Your task to perform on an android device: remove spam from my inbox in the gmail app Image 0: 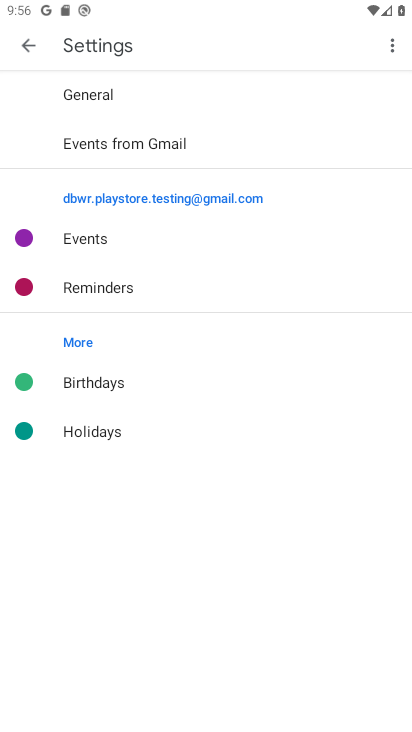
Step 0: press home button
Your task to perform on an android device: remove spam from my inbox in the gmail app Image 1: 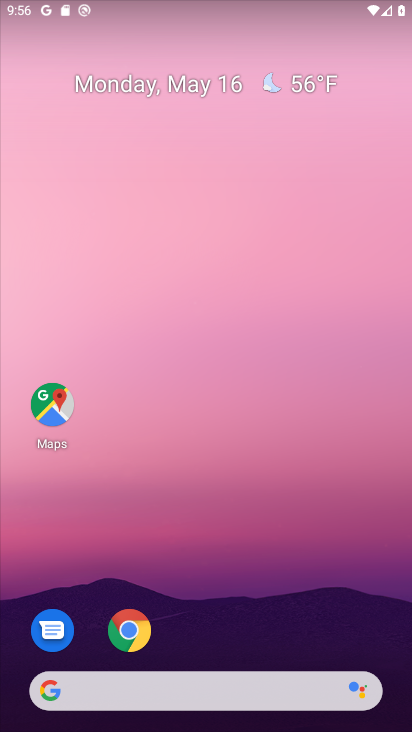
Step 1: drag from (239, 554) to (253, 54)
Your task to perform on an android device: remove spam from my inbox in the gmail app Image 2: 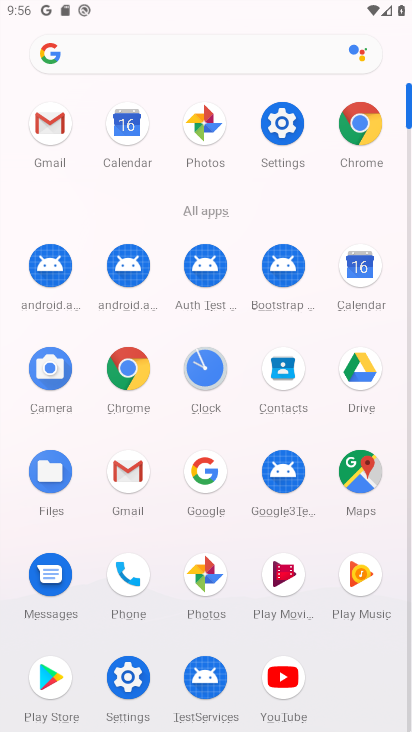
Step 2: click (52, 132)
Your task to perform on an android device: remove spam from my inbox in the gmail app Image 3: 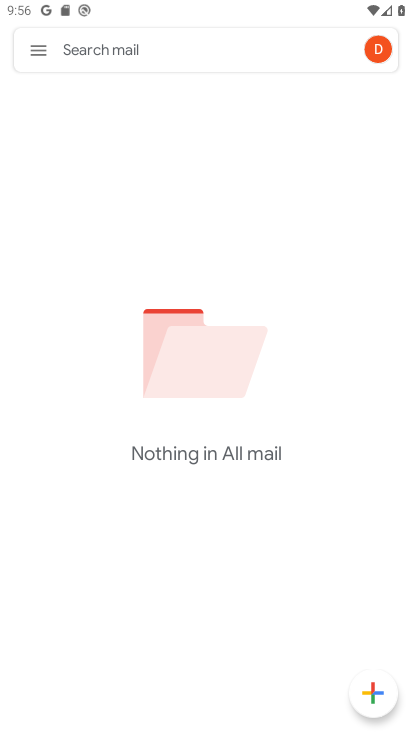
Step 3: click (37, 46)
Your task to perform on an android device: remove spam from my inbox in the gmail app Image 4: 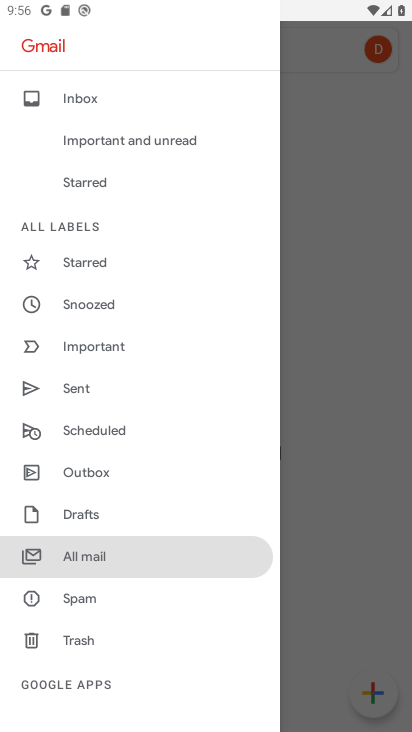
Step 4: click (84, 596)
Your task to perform on an android device: remove spam from my inbox in the gmail app Image 5: 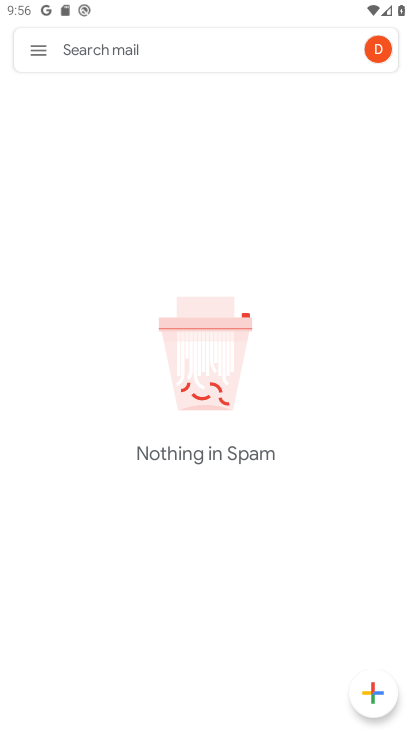
Step 5: task complete